Your task to perform on an android device: Go to Amazon Image 0: 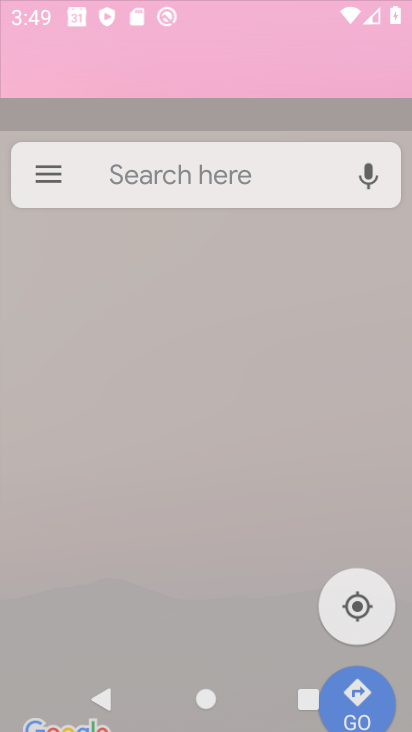
Step 0: drag from (275, 675) to (194, 185)
Your task to perform on an android device: Go to Amazon Image 1: 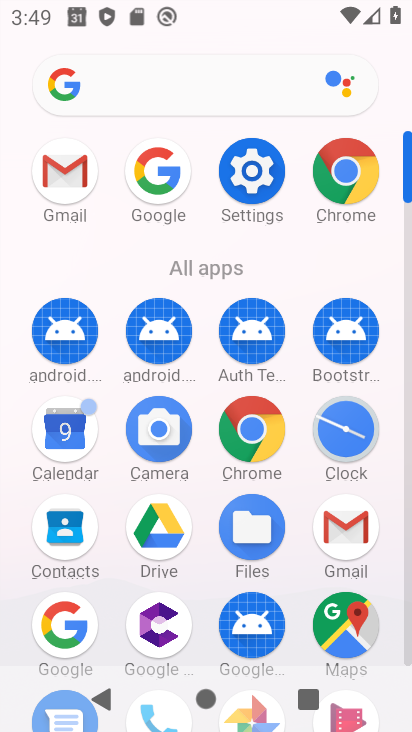
Step 1: click (333, 189)
Your task to perform on an android device: Go to Amazon Image 2: 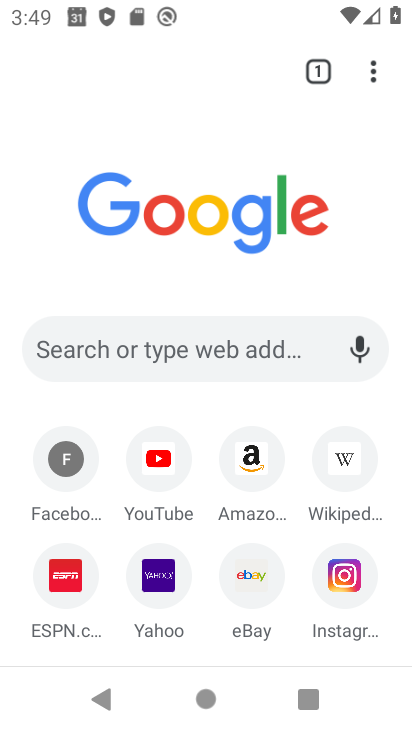
Step 2: click (262, 474)
Your task to perform on an android device: Go to Amazon Image 3: 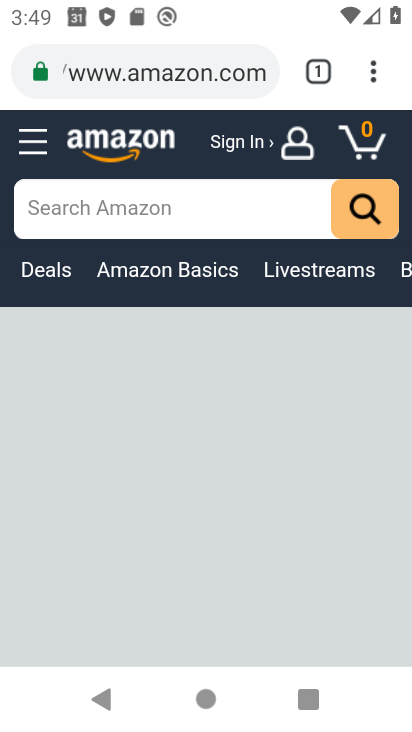
Step 3: task complete